Your task to perform on an android device: Open the phone app and click the voicemail tab. Image 0: 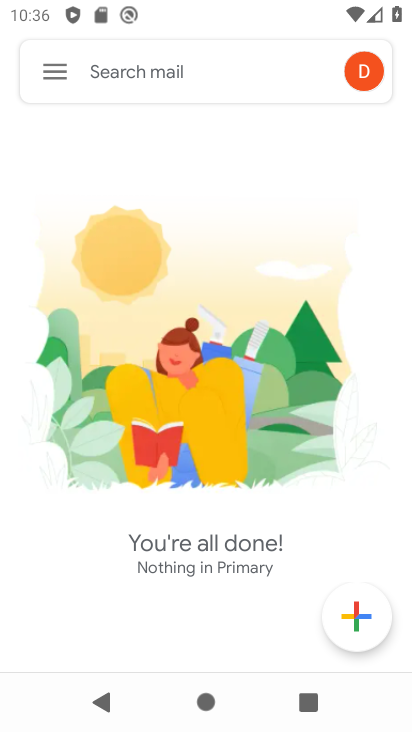
Step 0: press home button
Your task to perform on an android device: Open the phone app and click the voicemail tab. Image 1: 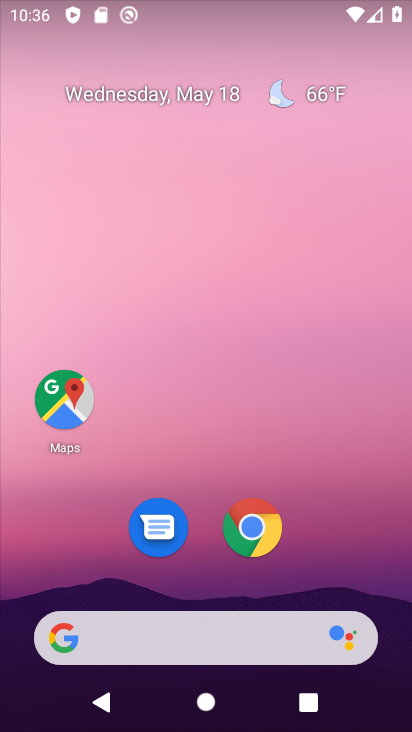
Step 1: drag from (348, 569) to (213, 183)
Your task to perform on an android device: Open the phone app and click the voicemail tab. Image 2: 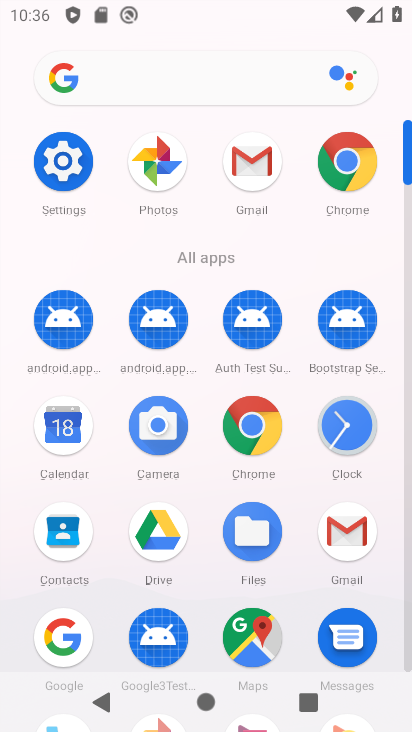
Step 2: click (410, 662)
Your task to perform on an android device: Open the phone app and click the voicemail tab. Image 3: 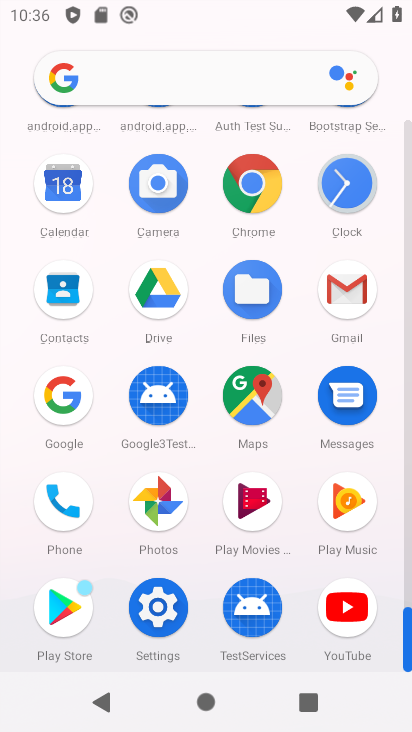
Step 3: click (64, 514)
Your task to perform on an android device: Open the phone app and click the voicemail tab. Image 4: 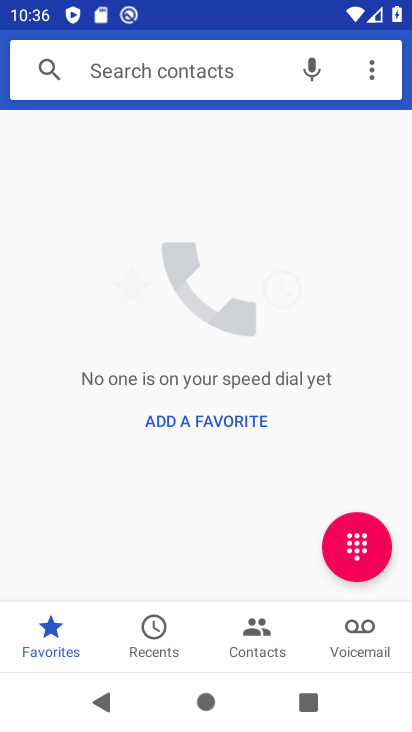
Step 4: click (358, 636)
Your task to perform on an android device: Open the phone app and click the voicemail tab. Image 5: 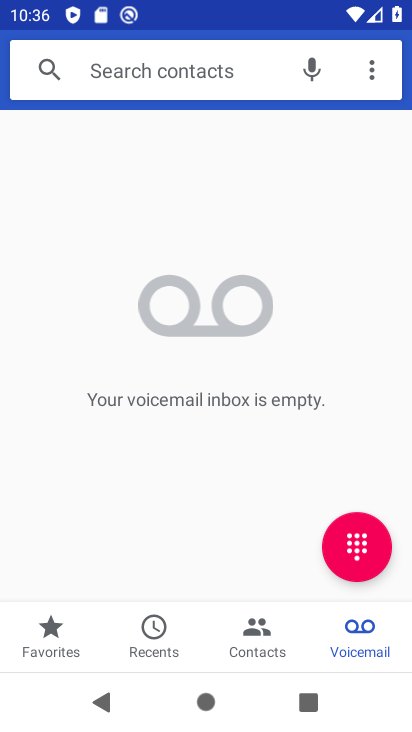
Step 5: task complete